Your task to perform on an android device: toggle pop-ups in chrome Image 0: 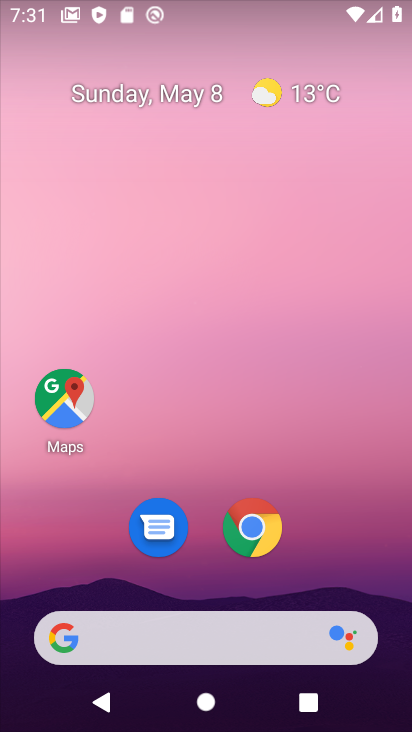
Step 0: click (252, 543)
Your task to perform on an android device: toggle pop-ups in chrome Image 1: 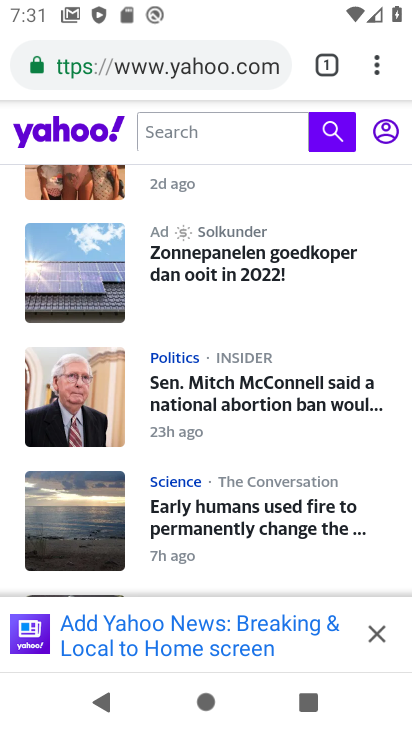
Step 1: click (371, 66)
Your task to perform on an android device: toggle pop-ups in chrome Image 2: 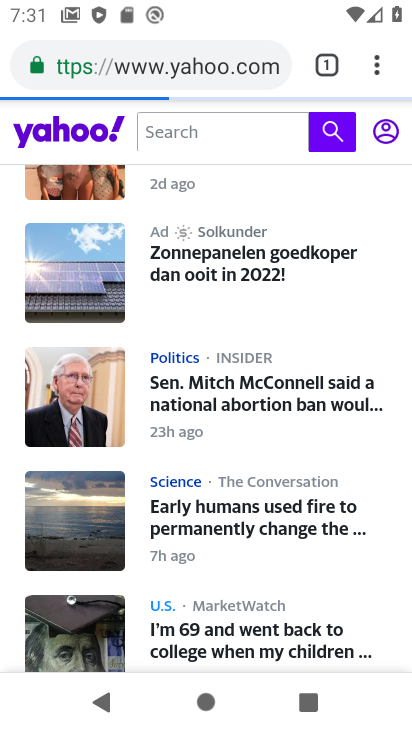
Step 2: click (379, 72)
Your task to perform on an android device: toggle pop-ups in chrome Image 3: 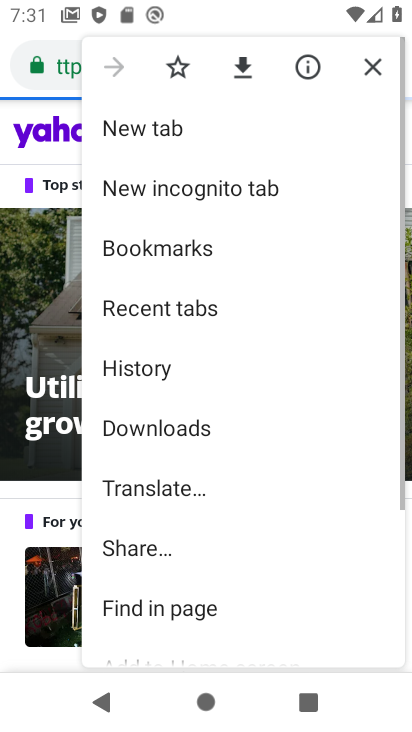
Step 3: drag from (218, 605) to (165, 172)
Your task to perform on an android device: toggle pop-ups in chrome Image 4: 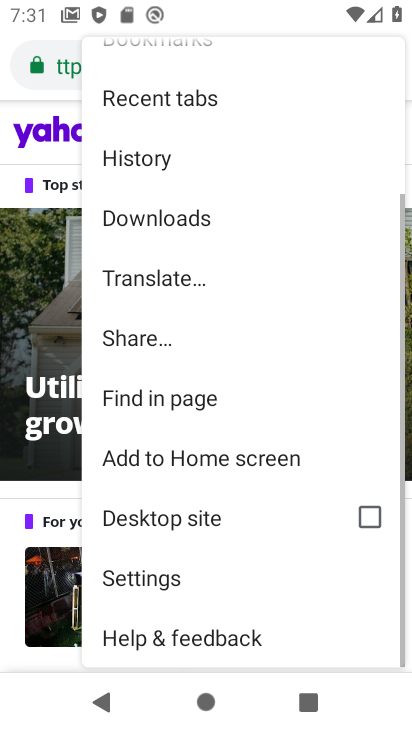
Step 4: click (135, 575)
Your task to perform on an android device: toggle pop-ups in chrome Image 5: 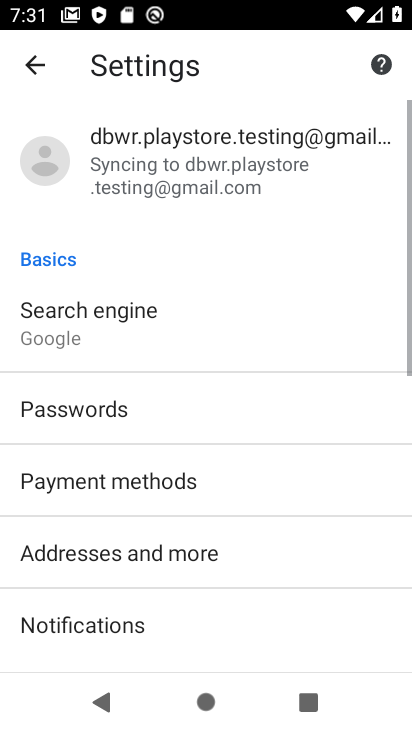
Step 5: drag from (140, 570) to (92, 140)
Your task to perform on an android device: toggle pop-ups in chrome Image 6: 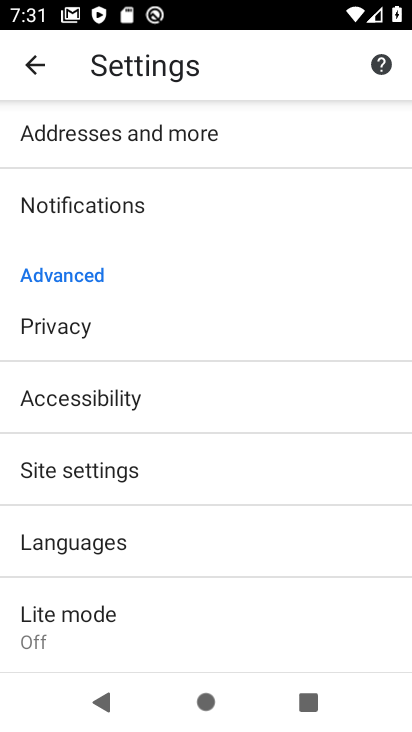
Step 6: click (110, 479)
Your task to perform on an android device: toggle pop-ups in chrome Image 7: 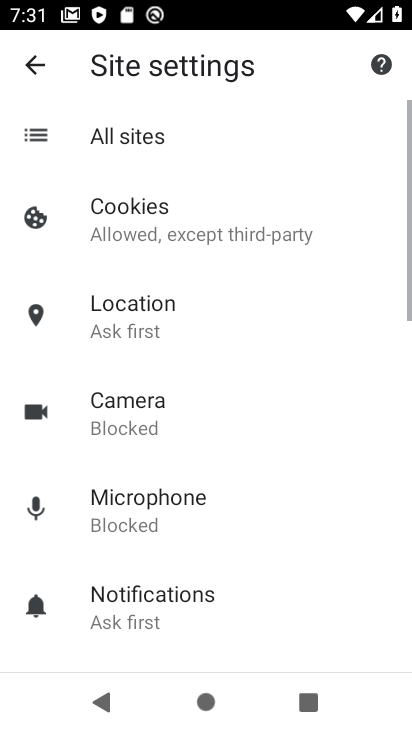
Step 7: drag from (160, 558) to (134, 147)
Your task to perform on an android device: toggle pop-ups in chrome Image 8: 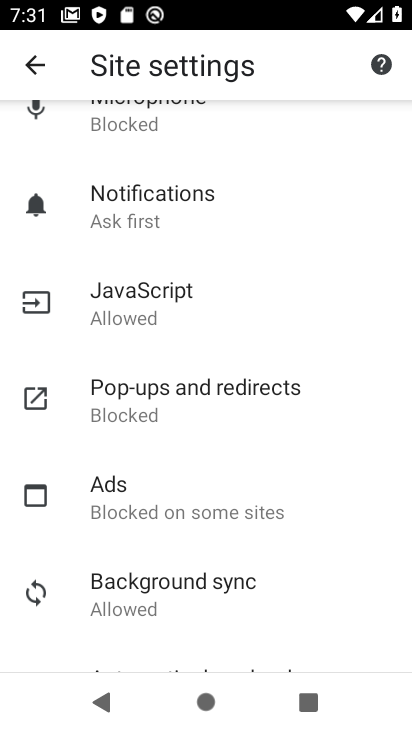
Step 8: drag from (124, 491) to (120, 393)
Your task to perform on an android device: toggle pop-ups in chrome Image 9: 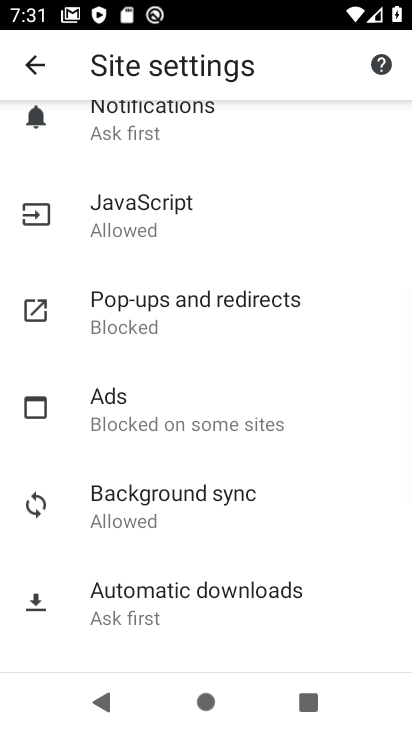
Step 9: click (124, 329)
Your task to perform on an android device: toggle pop-ups in chrome Image 10: 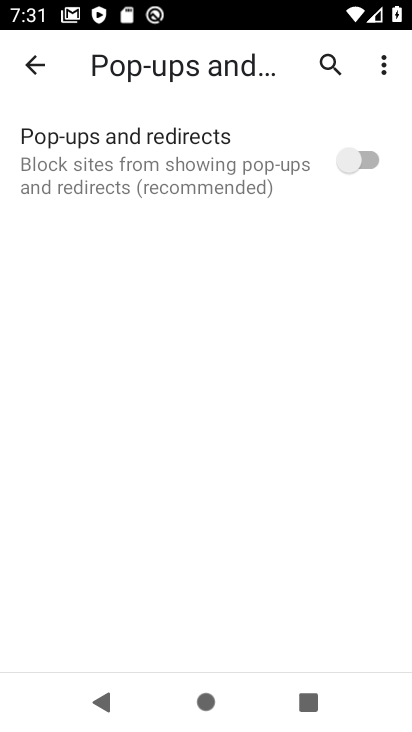
Step 10: click (352, 171)
Your task to perform on an android device: toggle pop-ups in chrome Image 11: 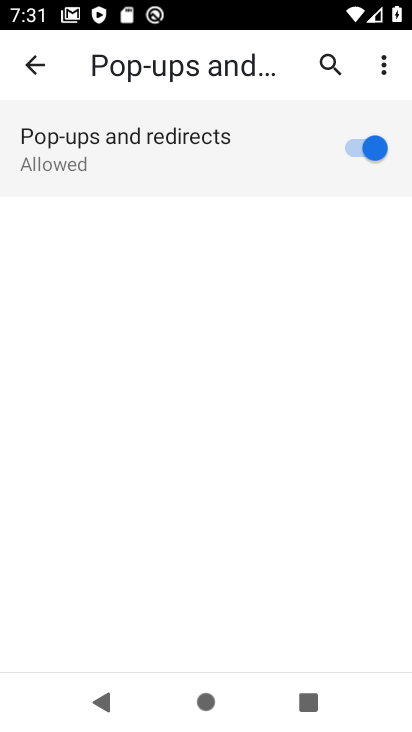
Step 11: task complete